Your task to perform on an android device: Go to Wikipedia Image 0: 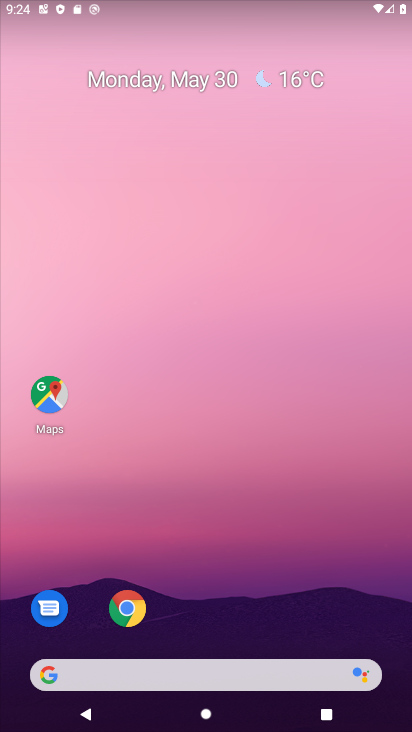
Step 0: click (129, 618)
Your task to perform on an android device: Go to Wikipedia Image 1: 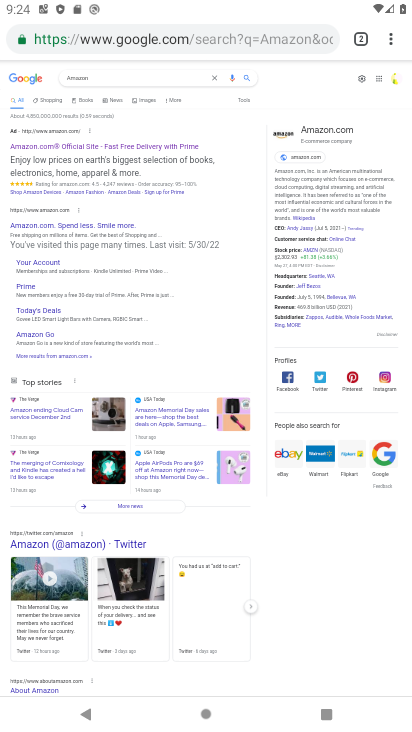
Step 1: click (388, 38)
Your task to perform on an android device: Go to Wikipedia Image 2: 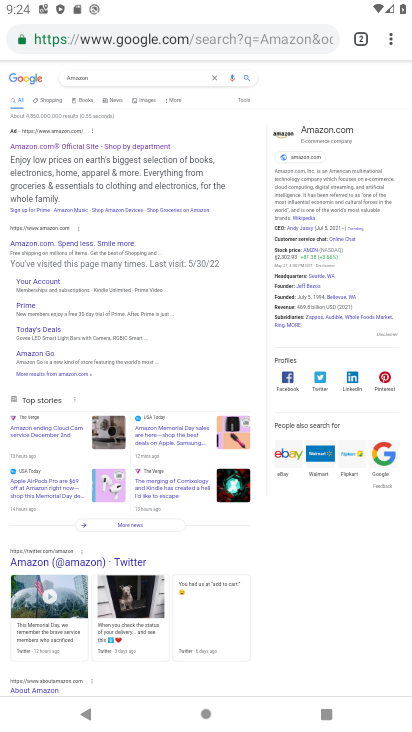
Step 2: click (328, 34)
Your task to perform on an android device: Go to Wikipedia Image 3: 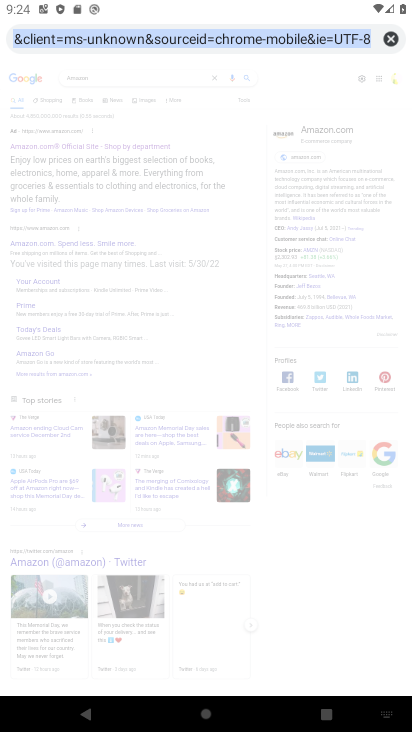
Step 3: click (397, 35)
Your task to perform on an android device: Go to Wikipedia Image 4: 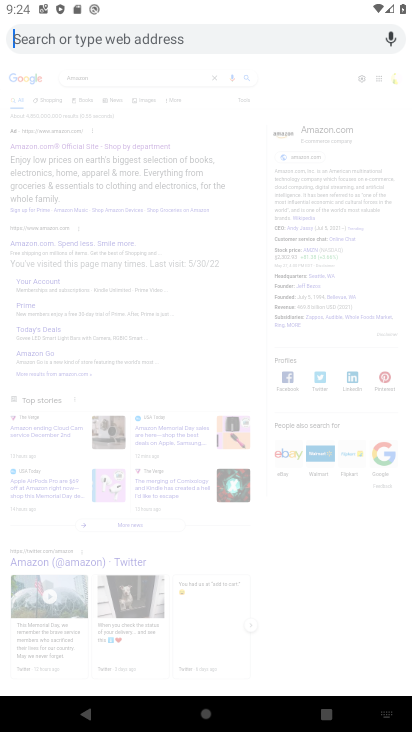
Step 4: type "Wikipedia"
Your task to perform on an android device: Go to Wikipedia Image 5: 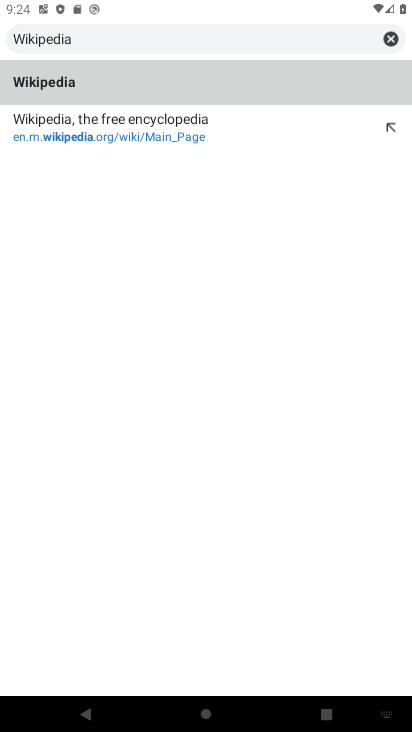
Step 5: click (72, 75)
Your task to perform on an android device: Go to Wikipedia Image 6: 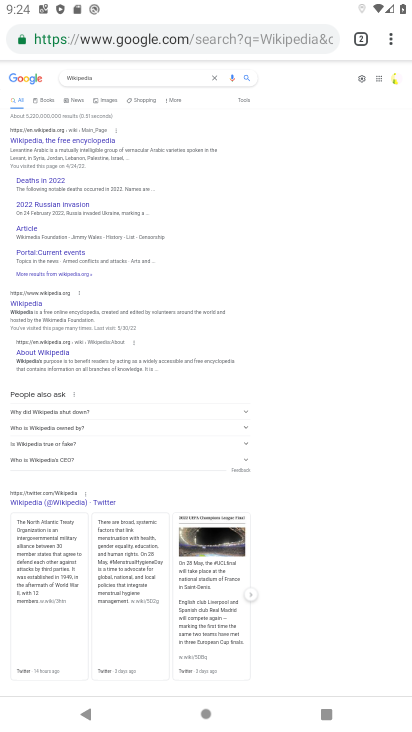
Step 6: task complete